Your task to perform on an android device: What's on my calendar today? Image 0: 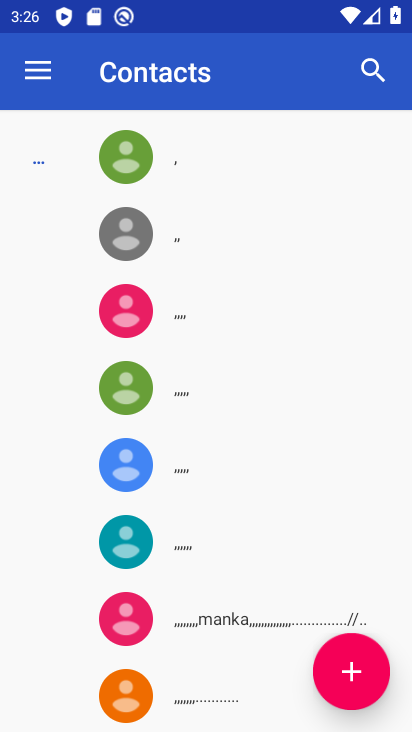
Step 0: press home button
Your task to perform on an android device: What's on my calendar today? Image 1: 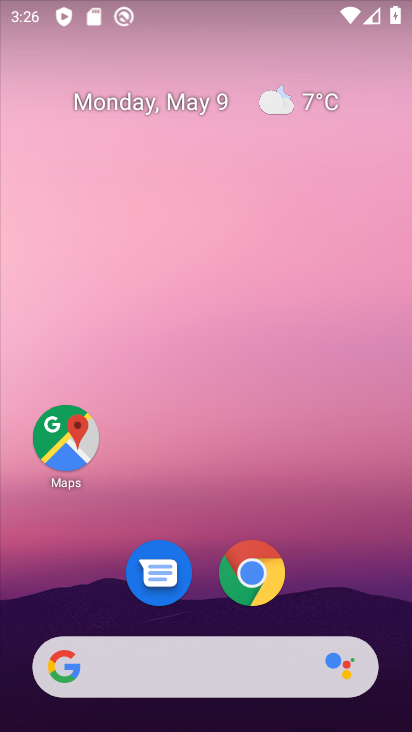
Step 1: drag from (352, 607) to (354, 38)
Your task to perform on an android device: What's on my calendar today? Image 2: 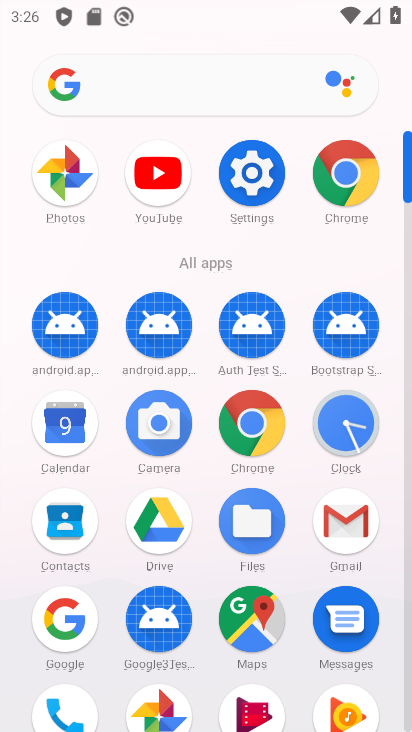
Step 2: click (51, 429)
Your task to perform on an android device: What's on my calendar today? Image 3: 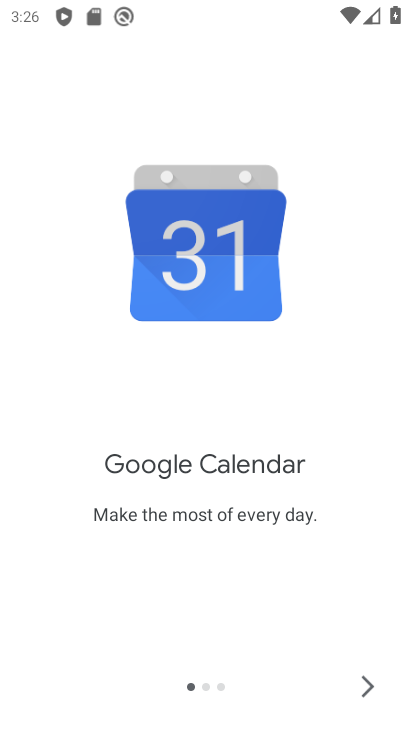
Step 3: click (363, 692)
Your task to perform on an android device: What's on my calendar today? Image 4: 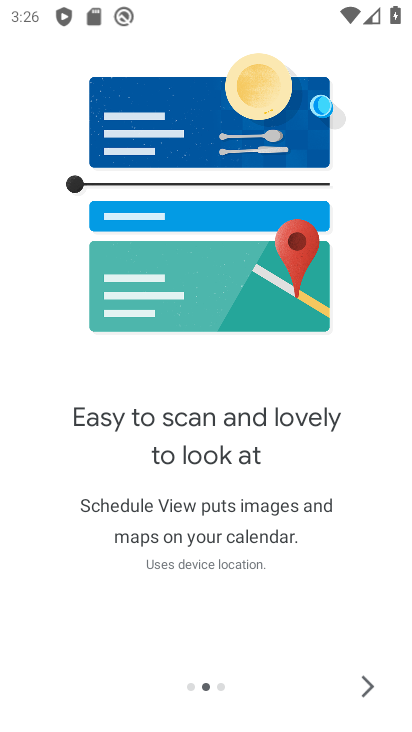
Step 4: click (363, 692)
Your task to perform on an android device: What's on my calendar today? Image 5: 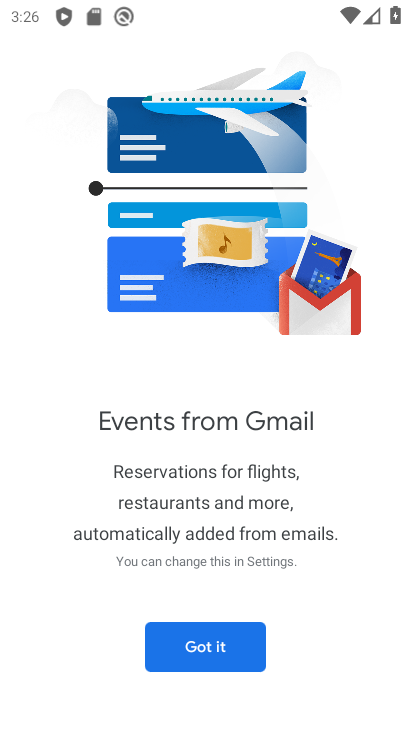
Step 5: click (215, 664)
Your task to perform on an android device: What's on my calendar today? Image 6: 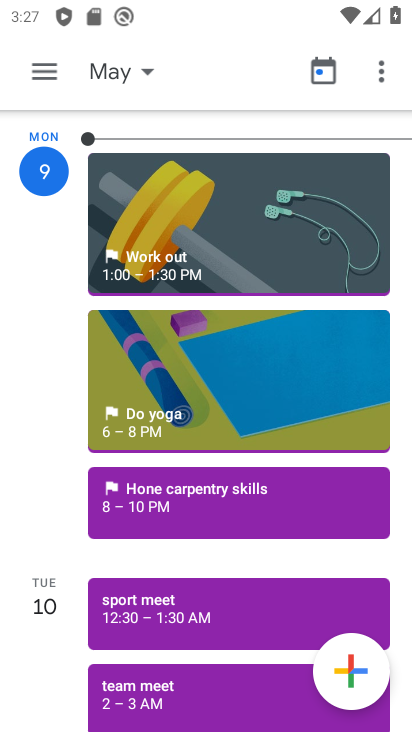
Step 6: click (177, 502)
Your task to perform on an android device: What's on my calendar today? Image 7: 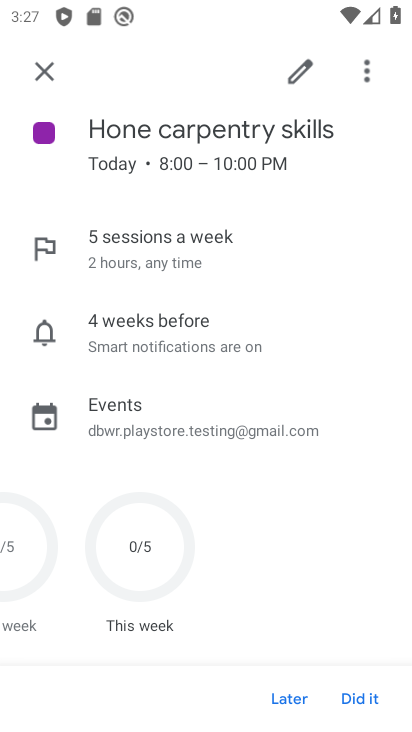
Step 7: task complete